Your task to perform on an android device: Open Google Image 0: 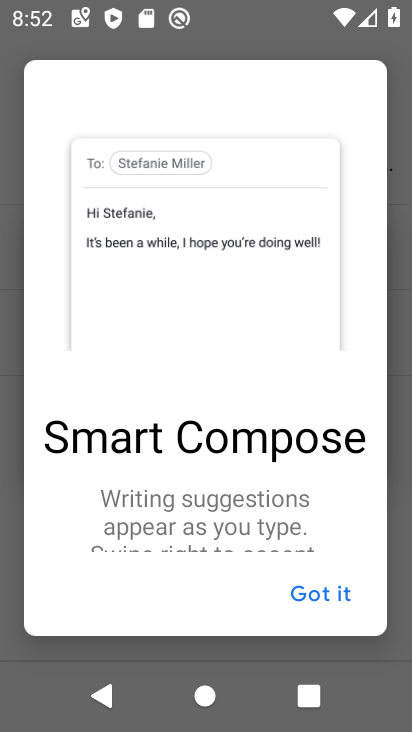
Step 0: press home button
Your task to perform on an android device: Open Google Image 1: 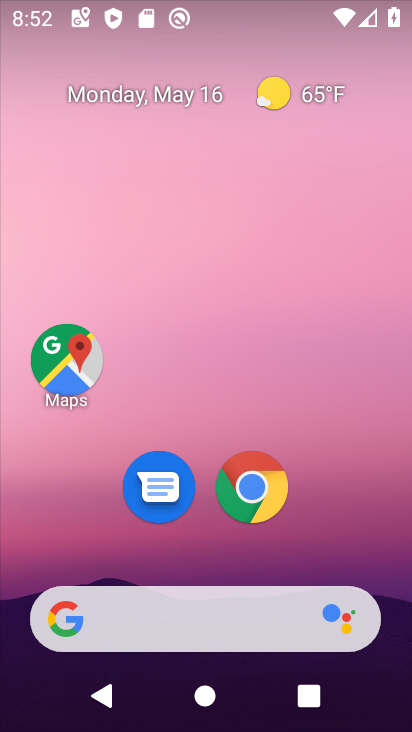
Step 1: drag from (340, 536) to (328, 195)
Your task to perform on an android device: Open Google Image 2: 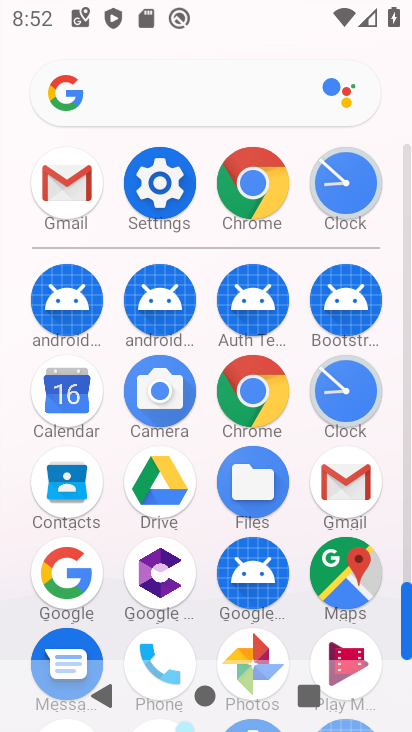
Step 2: click (72, 591)
Your task to perform on an android device: Open Google Image 3: 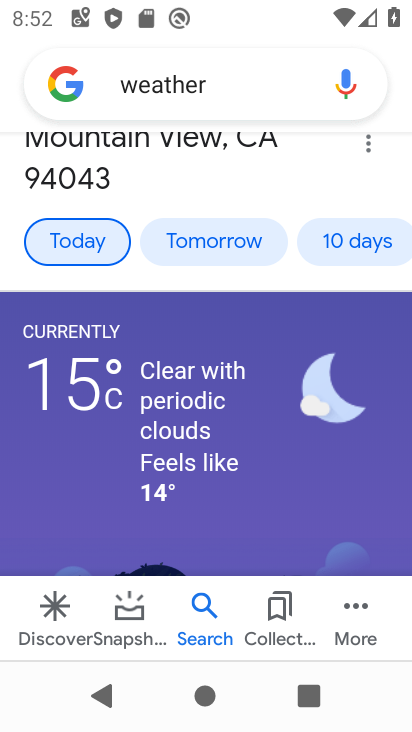
Step 3: task complete